Your task to perform on an android device: turn off translation in the chrome app Image 0: 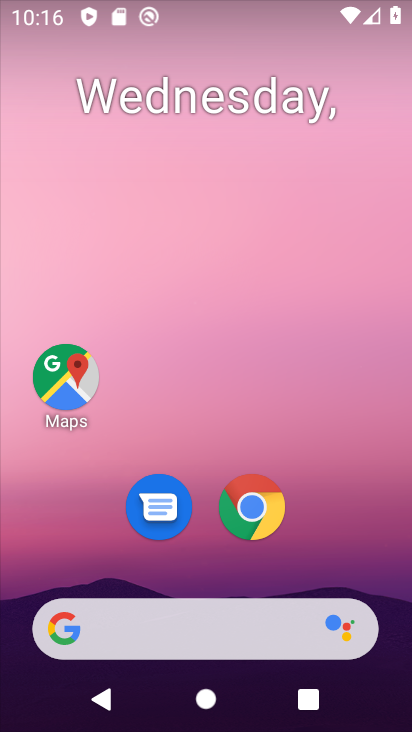
Step 0: drag from (338, 523) to (371, 183)
Your task to perform on an android device: turn off translation in the chrome app Image 1: 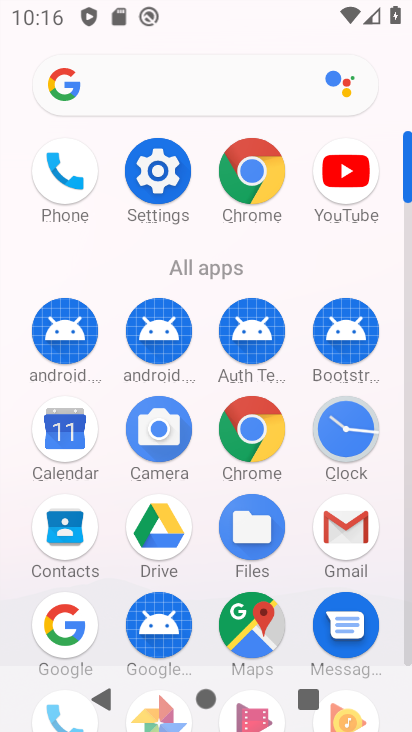
Step 1: click (256, 183)
Your task to perform on an android device: turn off translation in the chrome app Image 2: 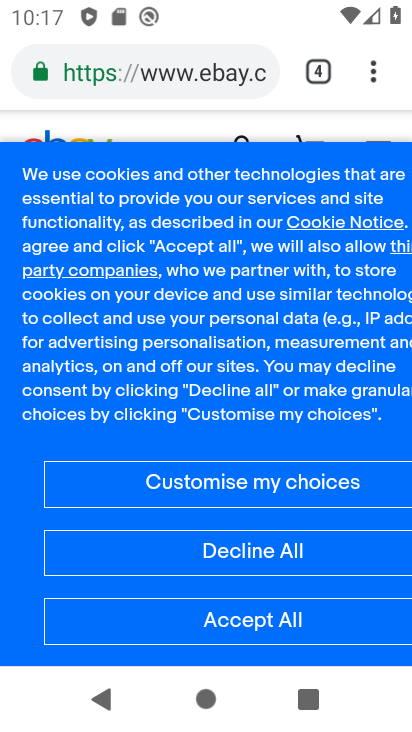
Step 2: click (352, 68)
Your task to perform on an android device: turn off translation in the chrome app Image 3: 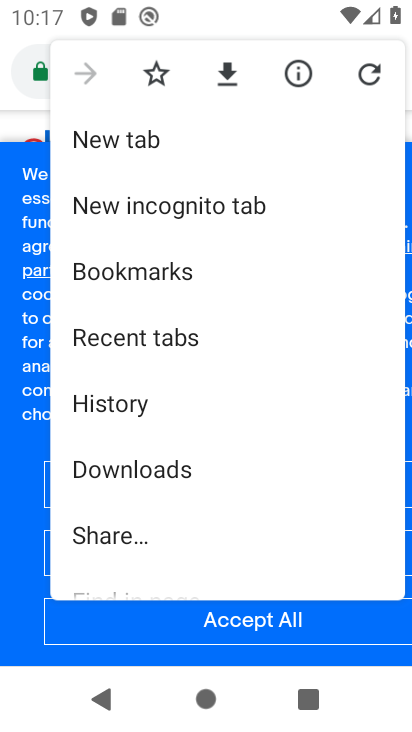
Step 3: drag from (162, 522) to (190, 178)
Your task to perform on an android device: turn off translation in the chrome app Image 4: 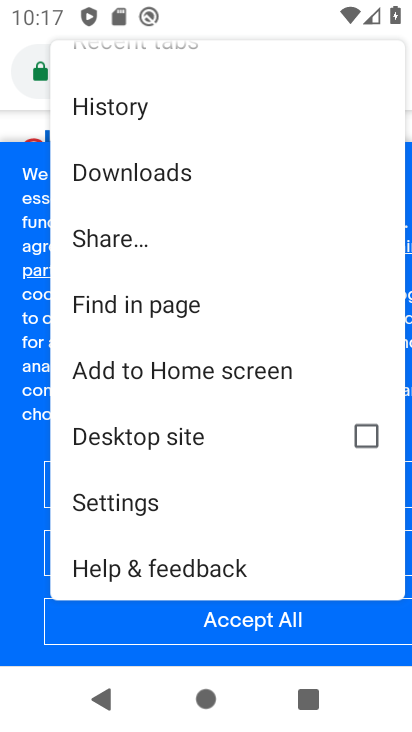
Step 4: click (148, 505)
Your task to perform on an android device: turn off translation in the chrome app Image 5: 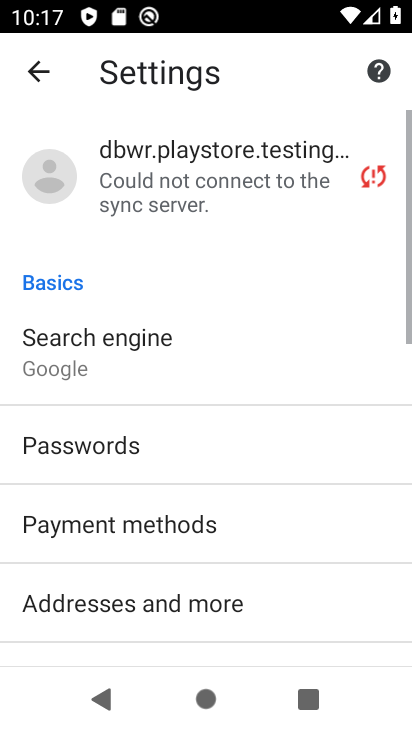
Step 5: drag from (213, 552) to (293, 135)
Your task to perform on an android device: turn off translation in the chrome app Image 6: 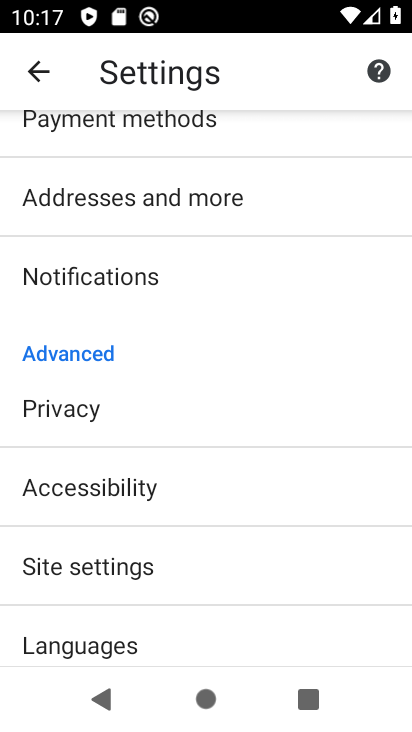
Step 6: drag from (200, 583) to (244, 297)
Your task to perform on an android device: turn off translation in the chrome app Image 7: 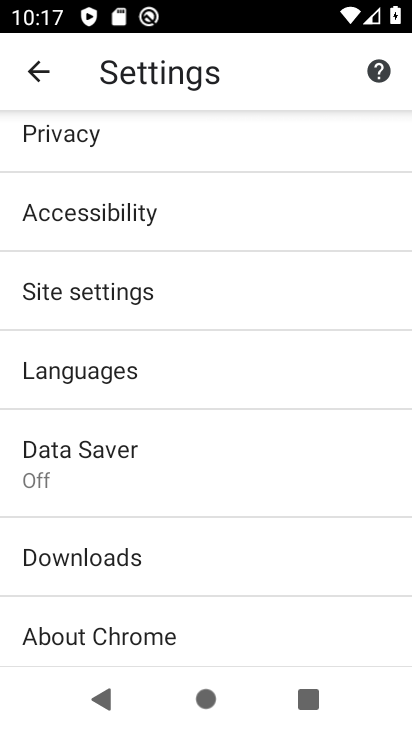
Step 7: click (104, 462)
Your task to perform on an android device: turn off translation in the chrome app Image 8: 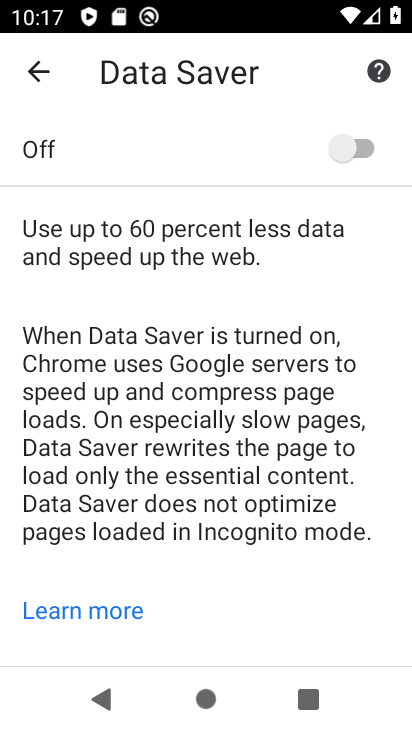
Step 8: click (28, 77)
Your task to perform on an android device: turn off translation in the chrome app Image 9: 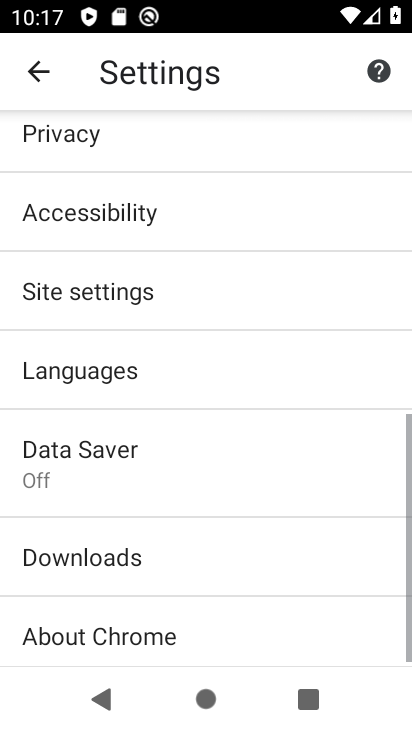
Step 9: click (103, 370)
Your task to perform on an android device: turn off translation in the chrome app Image 10: 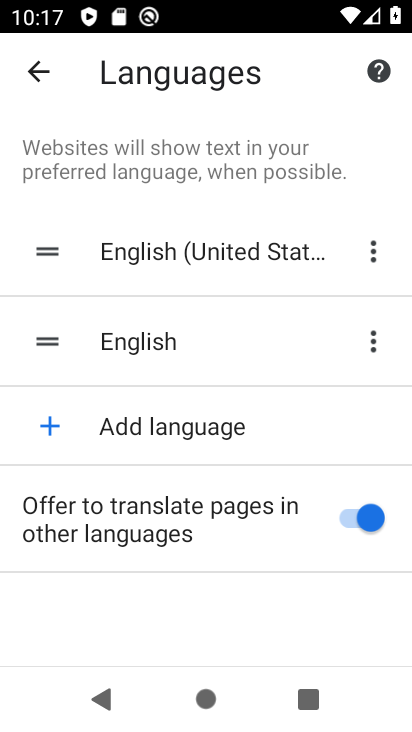
Step 10: click (334, 518)
Your task to perform on an android device: turn off translation in the chrome app Image 11: 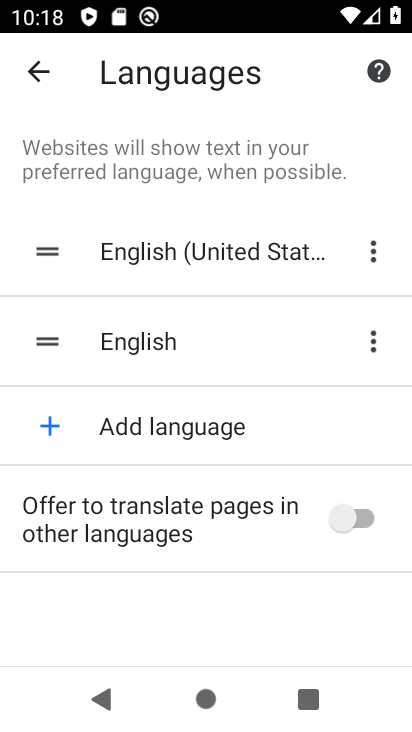
Step 11: task complete